Your task to perform on an android device: open app "Lyft - Rideshare, Bikes, Scooters & Transit" (install if not already installed) Image 0: 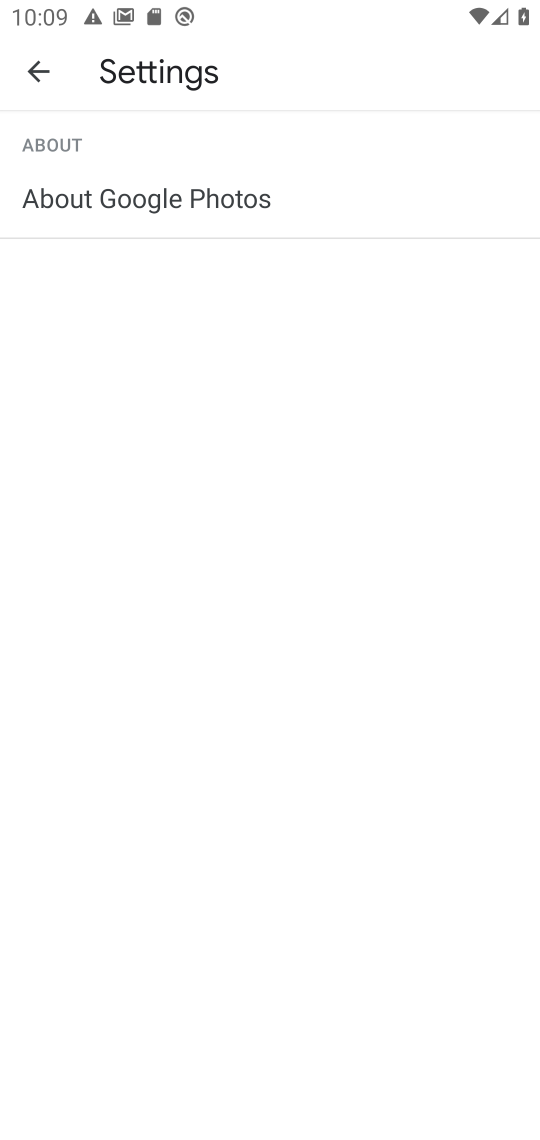
Step 0: press home button
Your task to perform on an android device: open app "Lyft - Rideshare, Bikes, Scooters & Transit" (install if not already installed) Image 1: 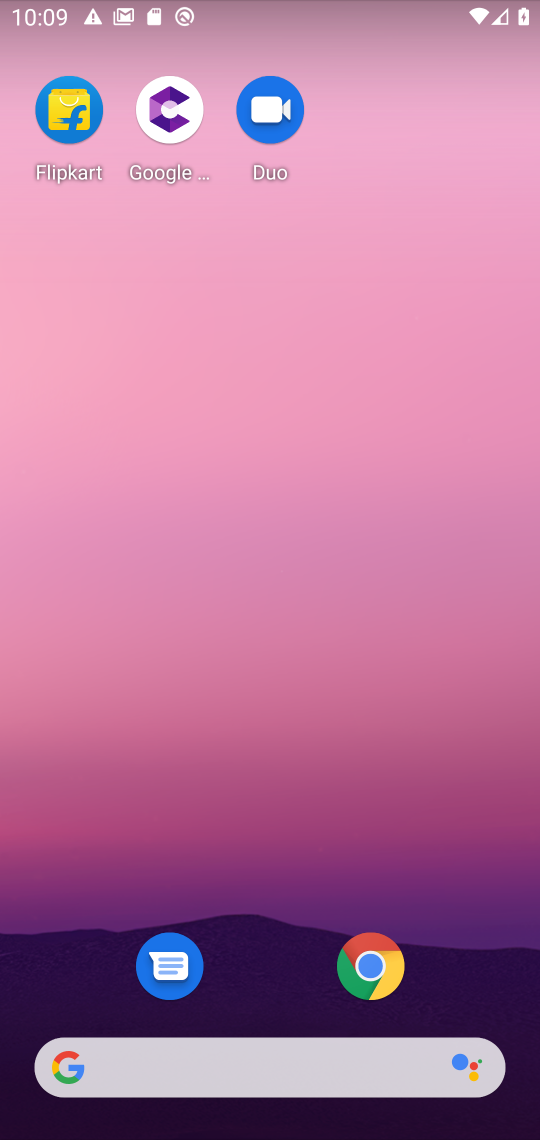
Step 1: drag from (252, 980) to (278, 1)
Your task to perform on an android device: open app "Lyft - Rideshare, Bikes, Scooters & Transit" (install if not already installed) Image 2: 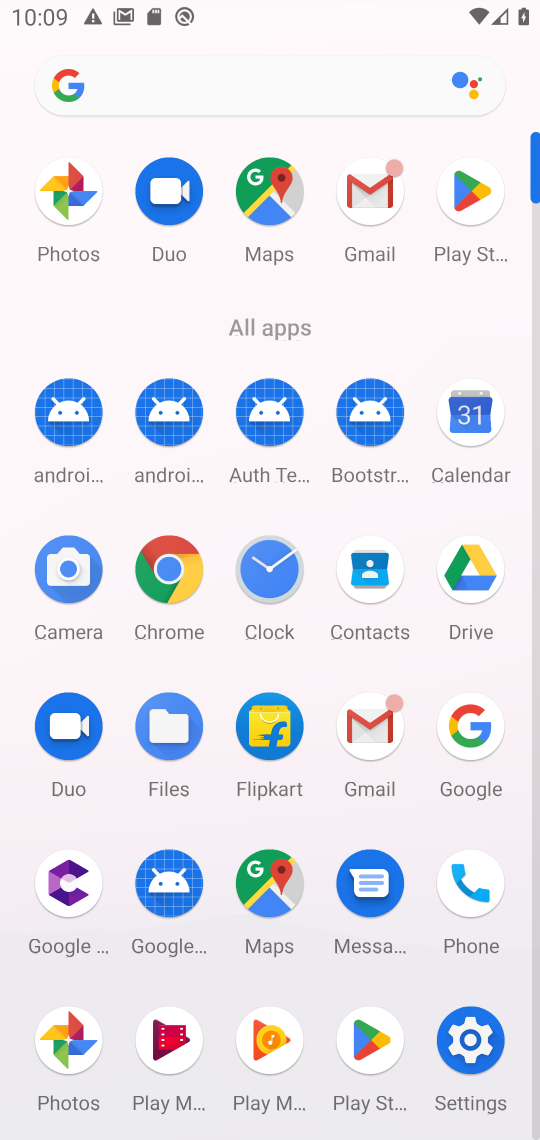
Step 2: click (368, 1055)
Your task to perform on an android device: open app "Lyft - Rideshare, Bikes, Scooters & Transit" (install if not already installed) Image 3: 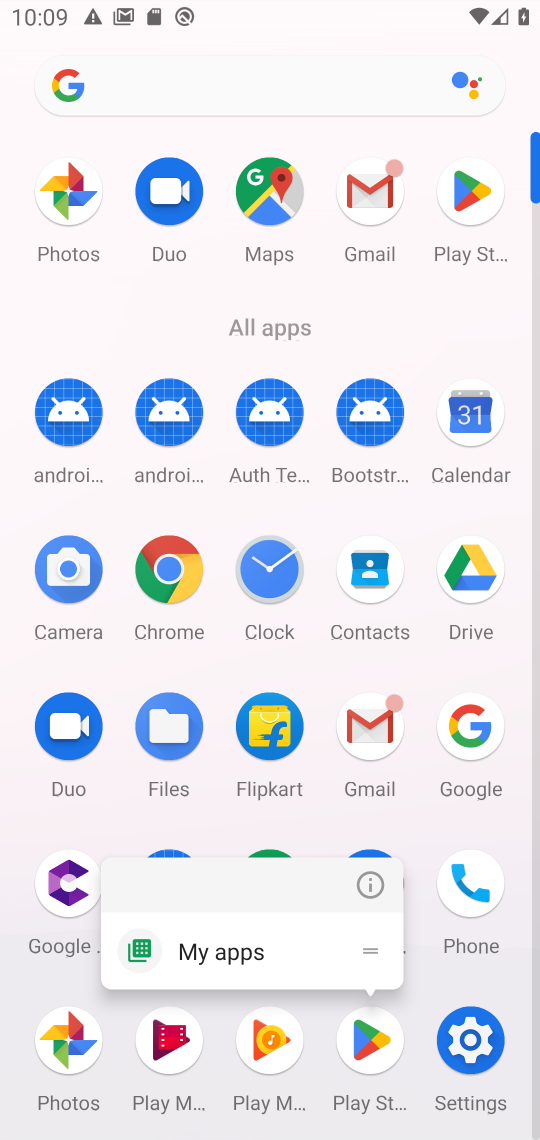
Step 3: click (383, 1052)
Your task to perform on an android device: open app "Lyft - Rideshare, Bikes, Scooters & Transit" (install if not already installed) Image 4: 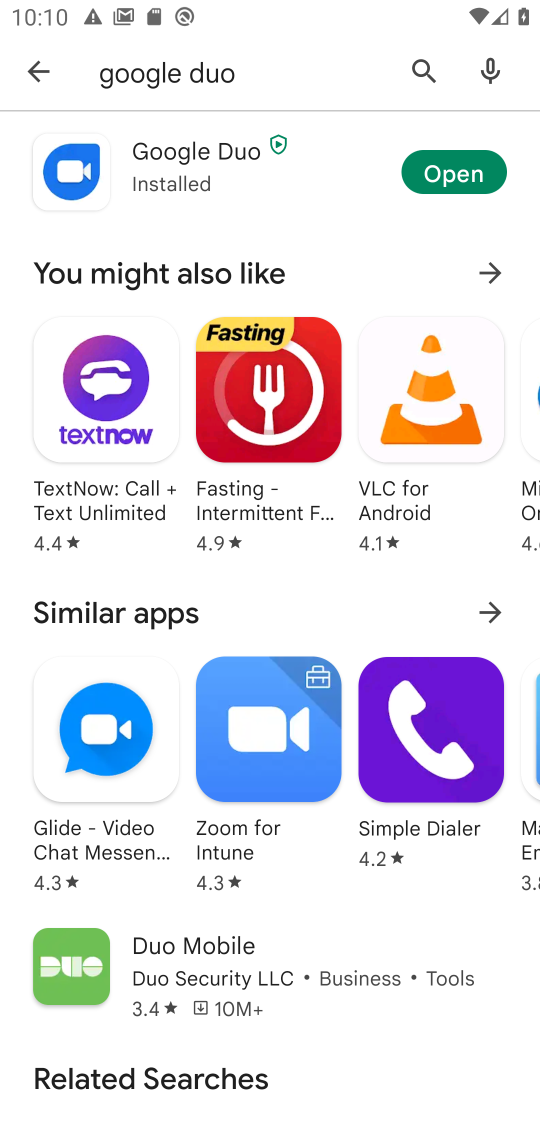
Step 4: click (187, 82)
Your task to perform on an android device: open app "Lyft - Rideshare, Bikes, Scooters & Transit" (install if not already installed) Image 5: 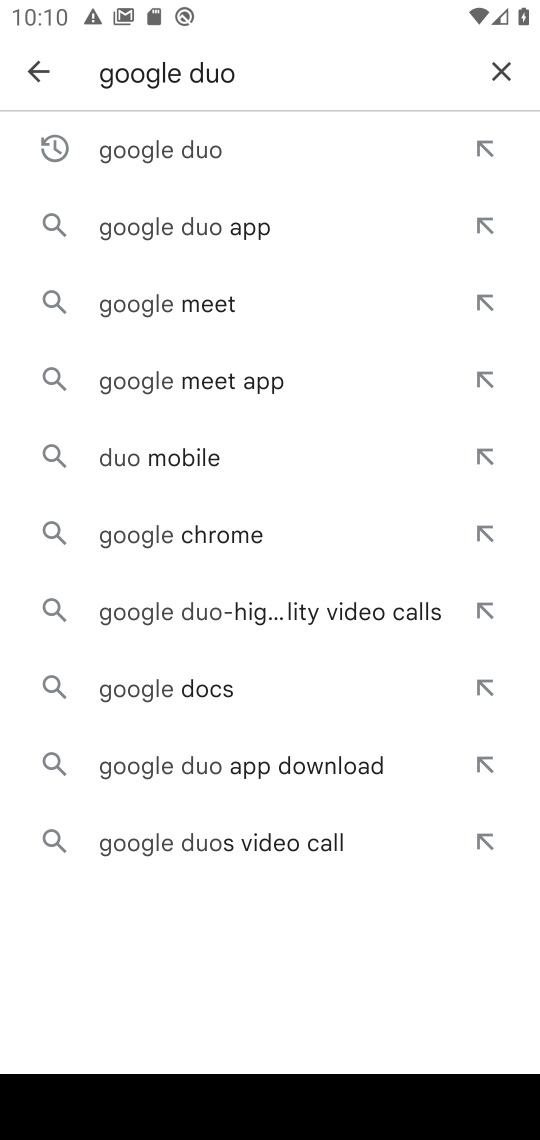
Step 5: click (494, 60)
Your task to perform on an android device: open app "Lyft - Rideshare, Bikes, Scooters & Transit" (install if not already installed) Image 6: 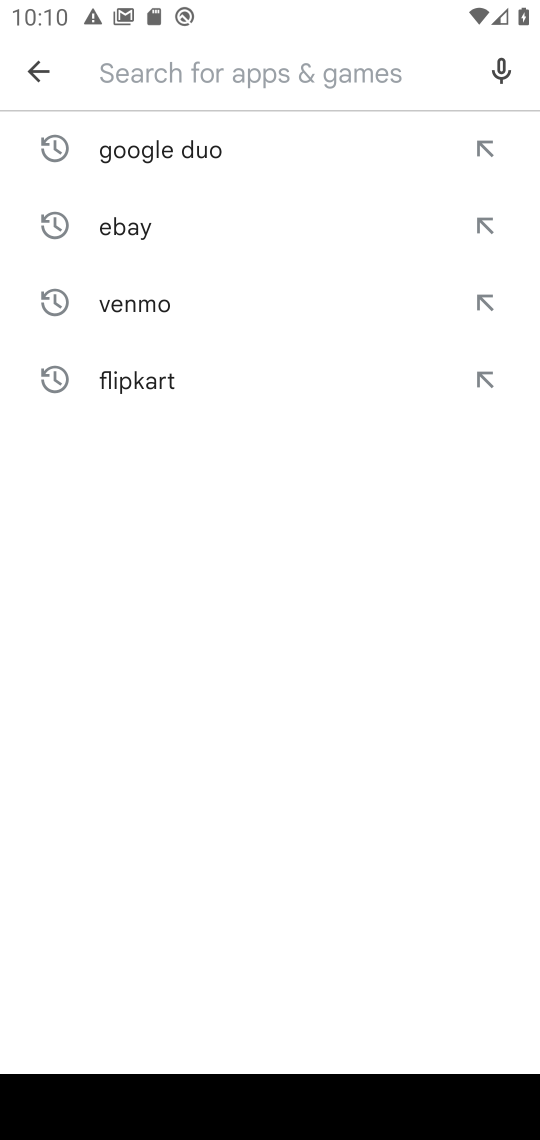
Step 6: type "lyft"
Your task to perform on an android device: open app "Lyft - Rideshare, Bikes, Scooters & Transit" (install if not already installed) Image 7: 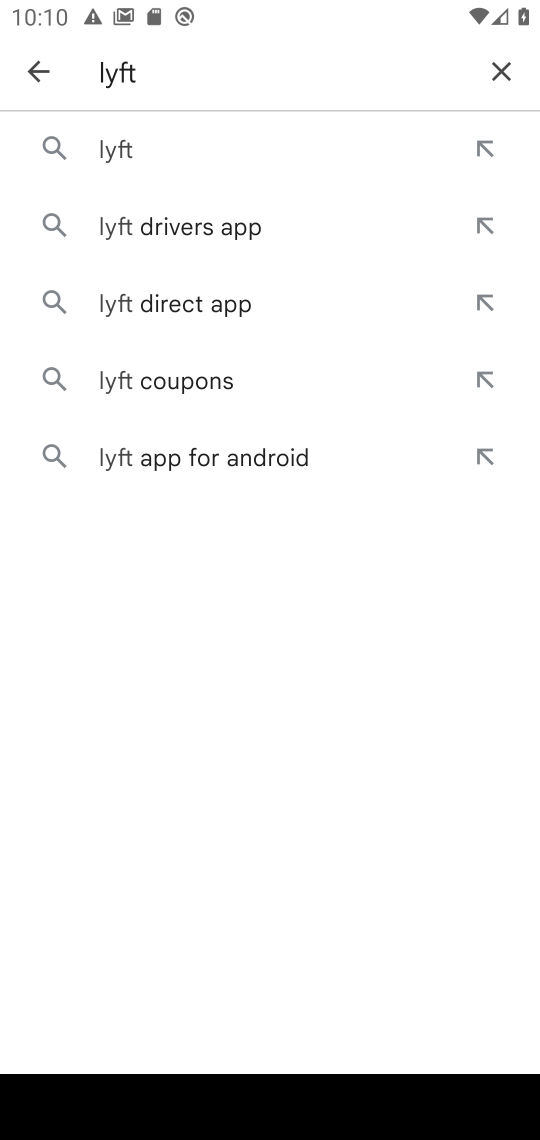
Step 7: click (173, 150)
Your task to perform on an android device: open app "Lyft - Rideshare, Bikes, Scooters & Transit" (install if not already installed) Image 8: 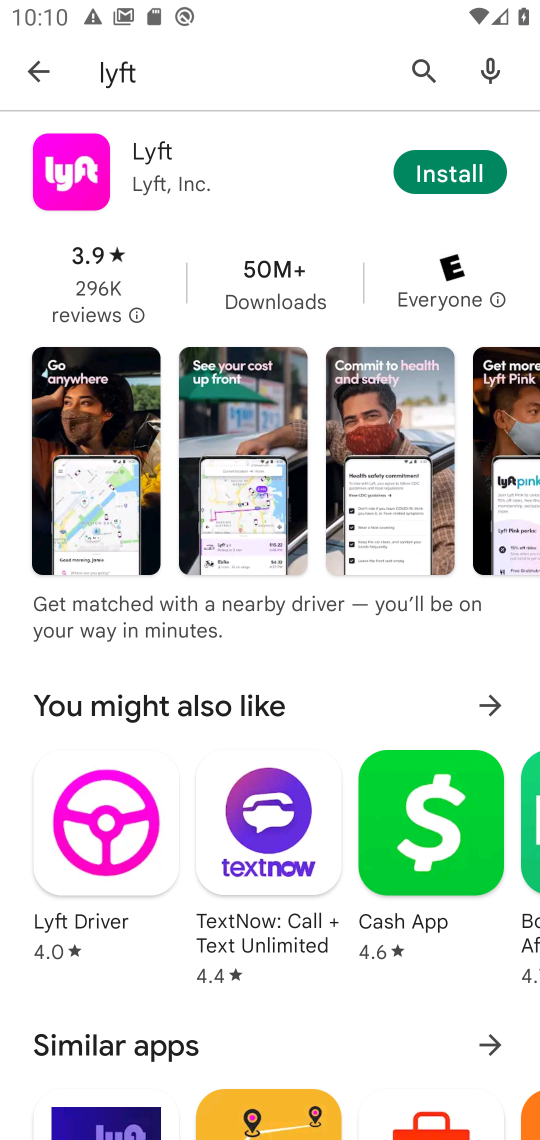
Step 8: click (449, 172)
Your task to perform on an android device: open app "Lyft - Rideshare, Bikes, Scooters & Transit" (install if not already installed) Image 9: 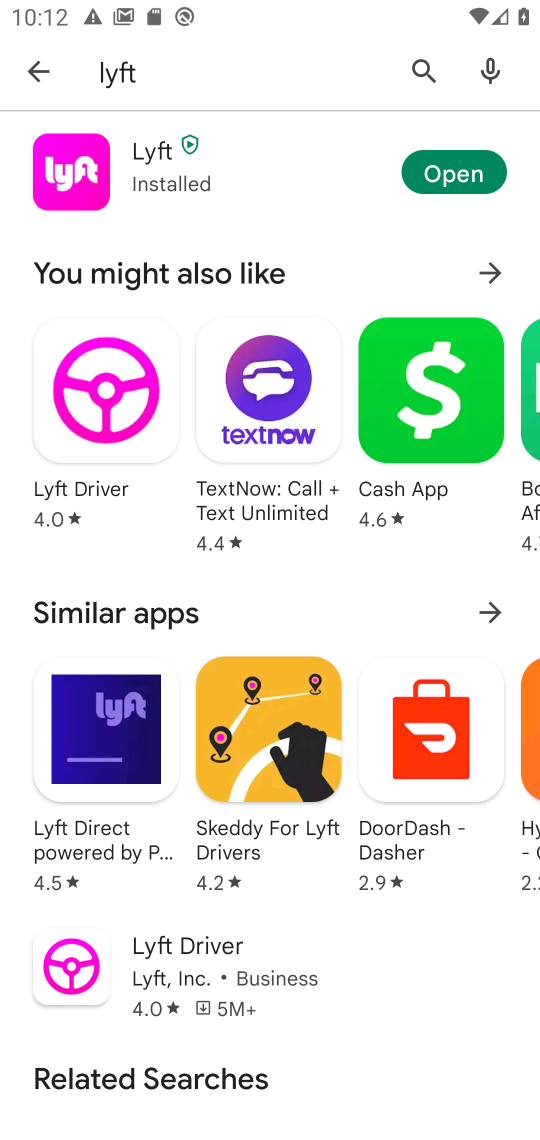
Step 9: click (462, 176)
Your task to perform on an android device: open app "Lyft - Rideshare, Bikes, Scooters & Transit" (install if not already installed) Image 10: 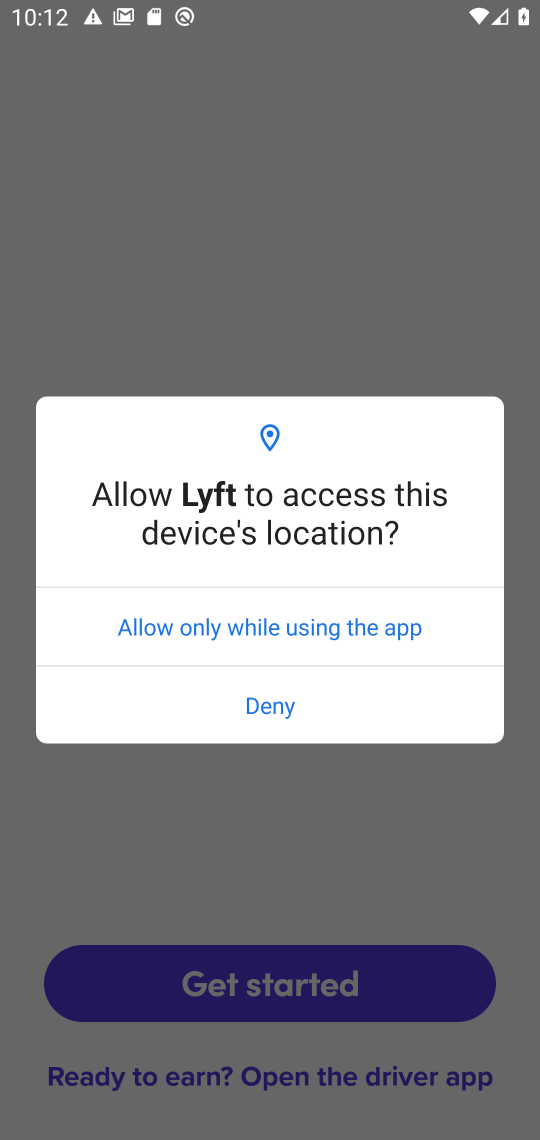
Step 10: click (362, 635)
Your task to perform on an android device: open app "Lyft - Rideshare, Bikes, Scooters & Transit" (install if not already installed) Image 11: 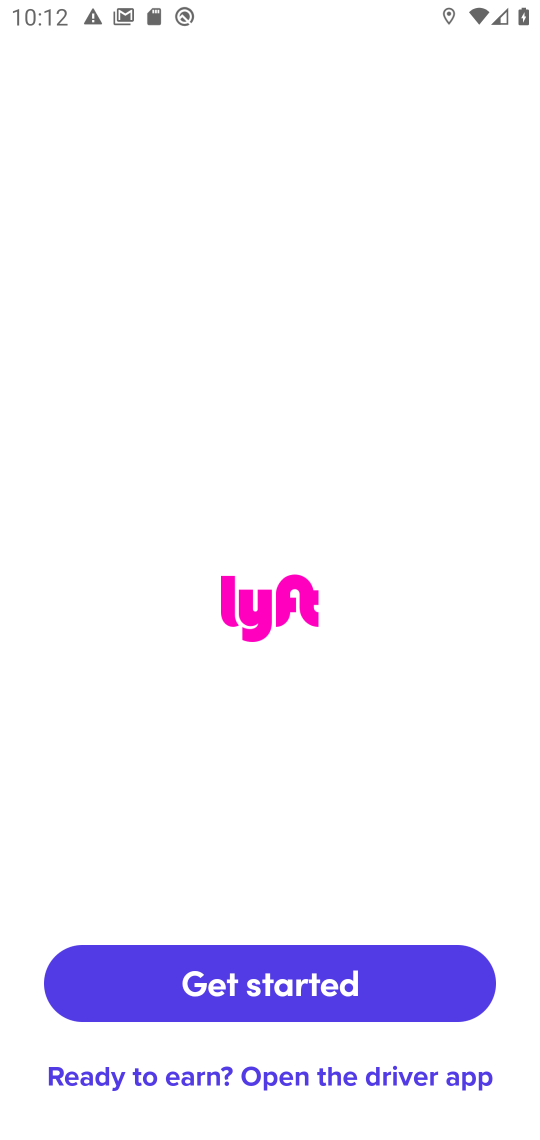
Step 11: click (342, 992)
Your task to perform on an android device: open app "Lyft - Rideshare, Bikes, Scooters & Transit" (install if not already installed) Image 12: 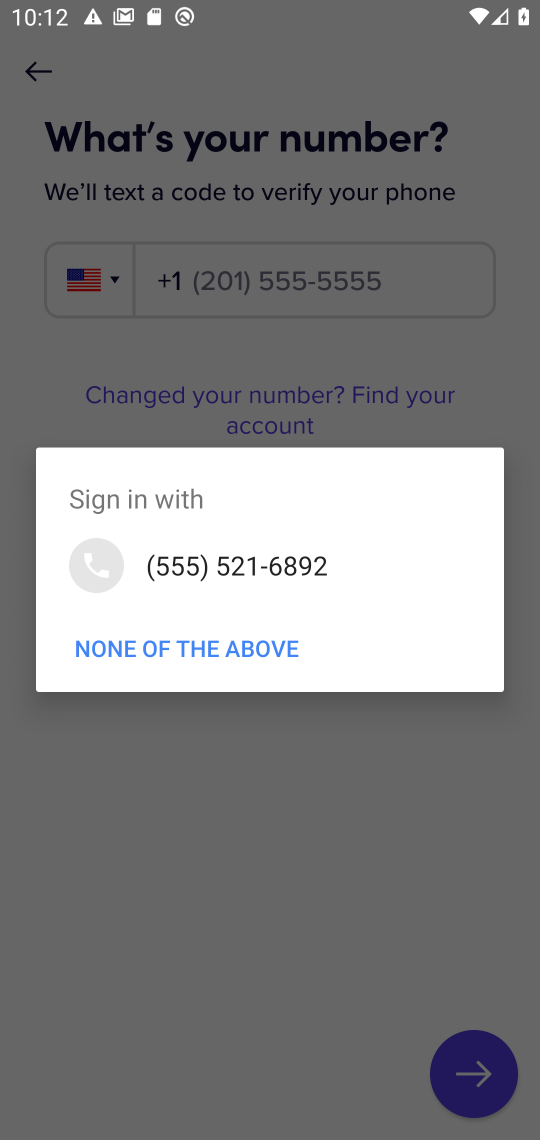
Step 12: task complete